Your task to perform on an android device: find snoozed emails in the gmail app Image 0: 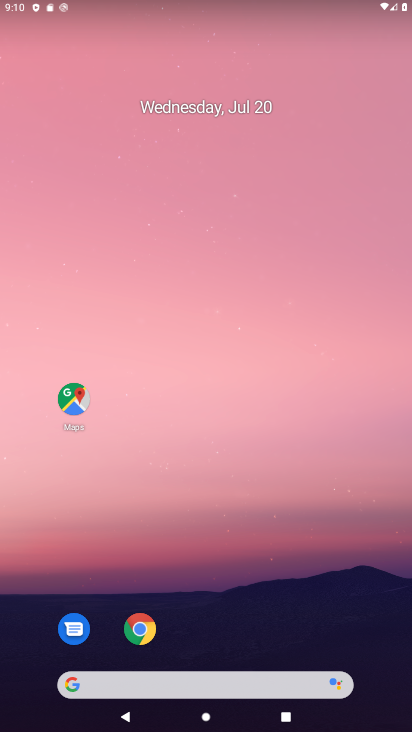
Step 0: drag from (330, 626) to (374, 40)
Your task to perform on an android device: find snoozed emails in the gmail app Image 1: 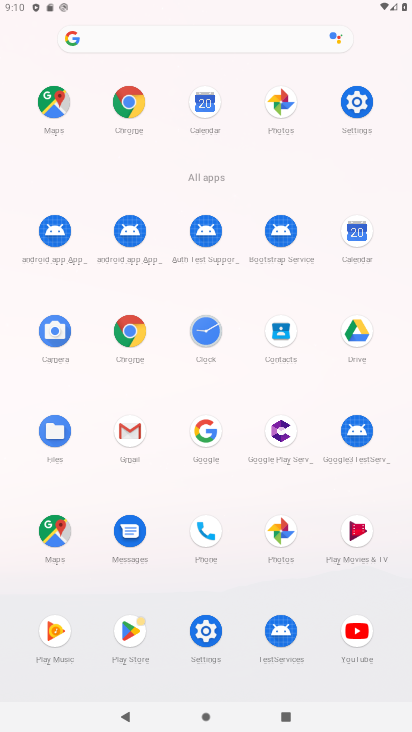
Step 1: click (137, 441)
Your task to perform on an android device: find snoozed emails in the gmail app Image 2: 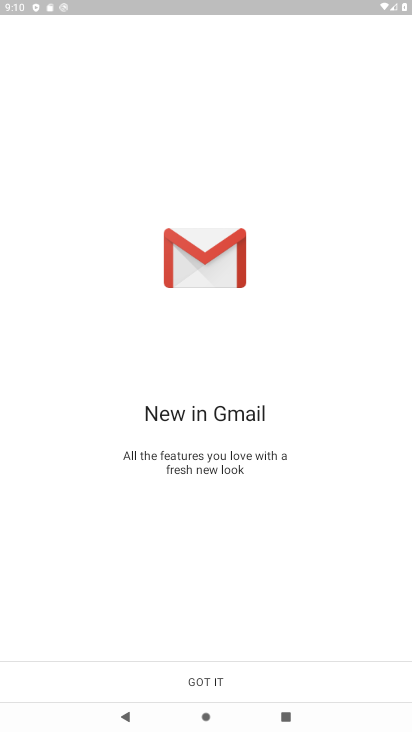
Step 2: click (205, 674)
Your task to perform on an android device: find snoozed emails in the gmail app Image 3: 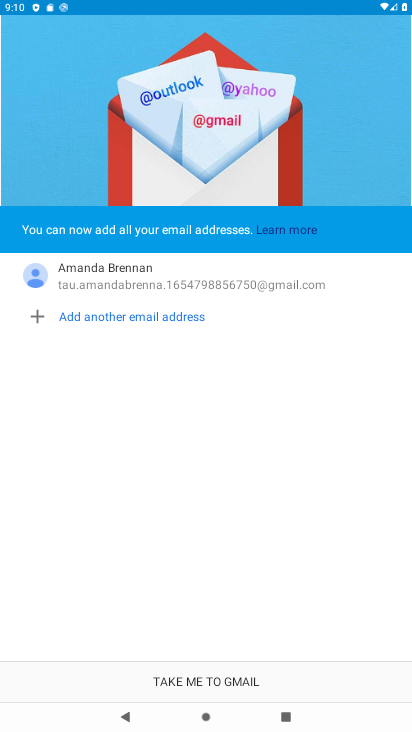
Step 3: click (209, 677)
Your task to perform on an android device: find snoozed emails in the gmail app Image 4: 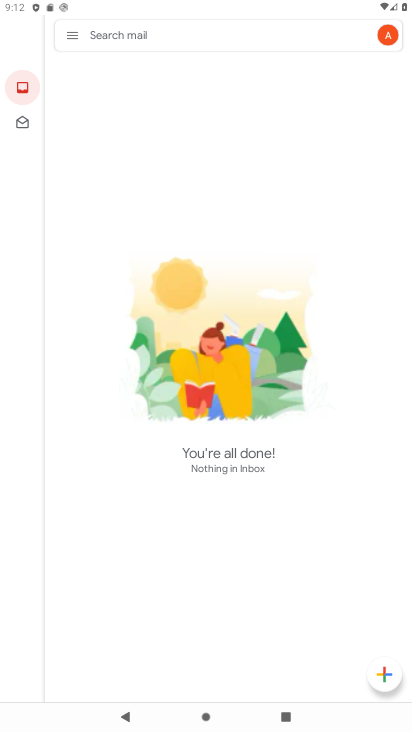
Step 4: press home button
Your task to perform on an android device: find snoozed emails in the gmail app Image 5: 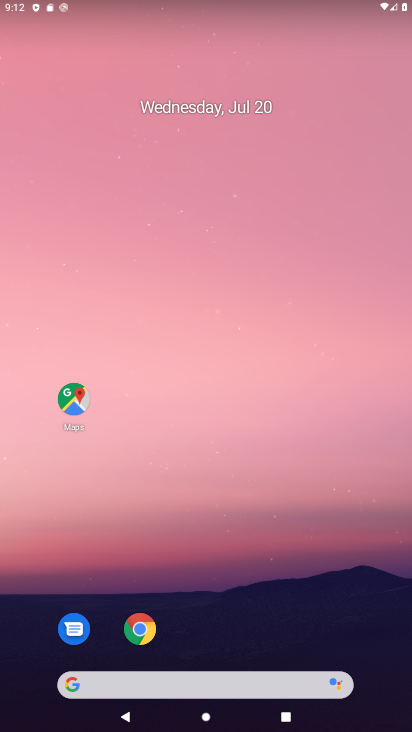
Step 5: drag from (327, 635) to (108, 41)
Your task to perform on an android device: find snoozed emails in the gmail app Image 6: 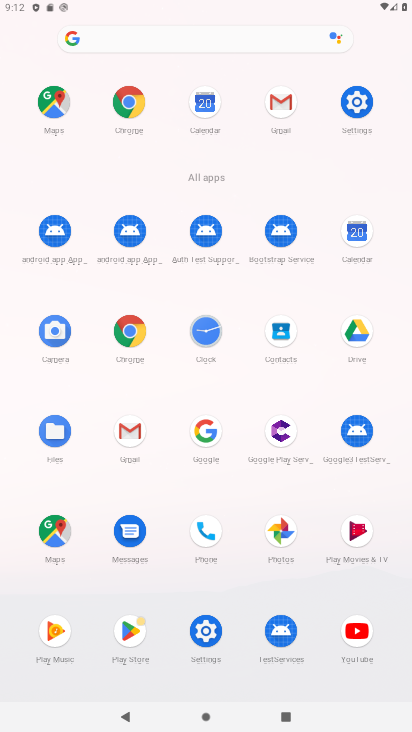
Step 6: click (271, 105)
Your task to perform on an android device: find snoozed emails in the gmail app Image 7: 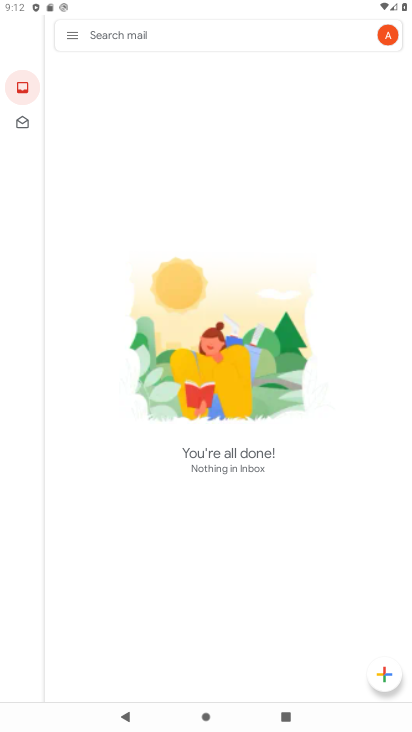
Step 7: click (81, 35)
Your task to perform on an android device: find snoozed emails in the gmail app Image 8: 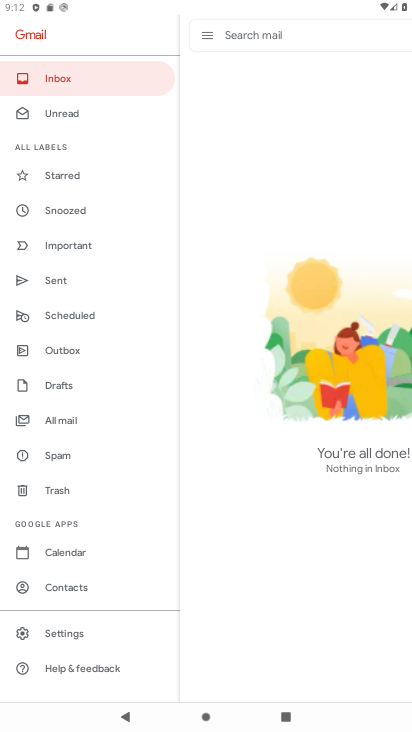
Step 8: click (69, 216)
Your task to perform on an android device: find snoozed emails in the gmail app Image 9: 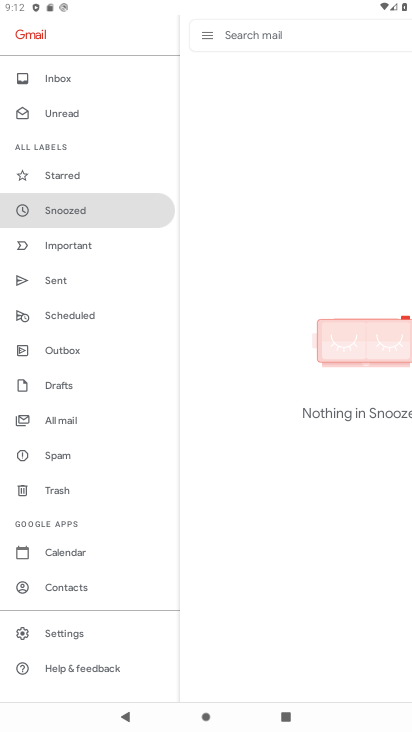
Step 9: task complete